Your task to perform on an android device: Search for sushi restaurants on Maps Image 0: 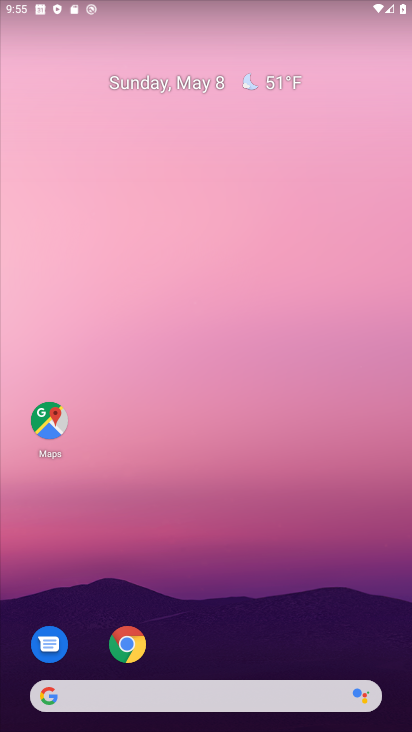
Step 0: click (239, 270)
Your task to perform on an android device: Search for sushi restaurants on Maps Image 1: 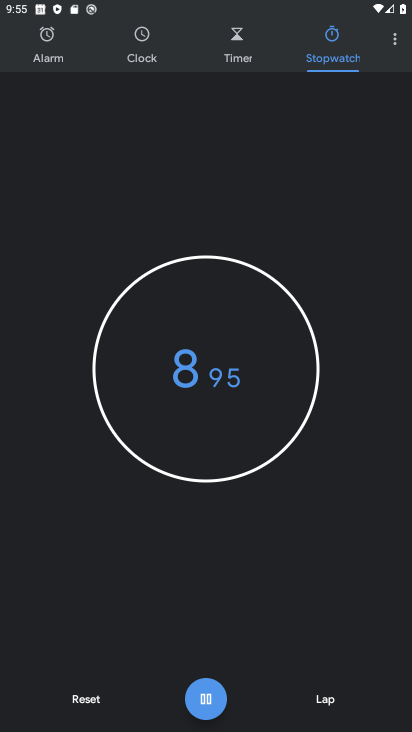
Step 1: drag from (195, 576) to (208, 290)
Your task to perform on an android device: Search for sushi restaurants on Maps Image 2: 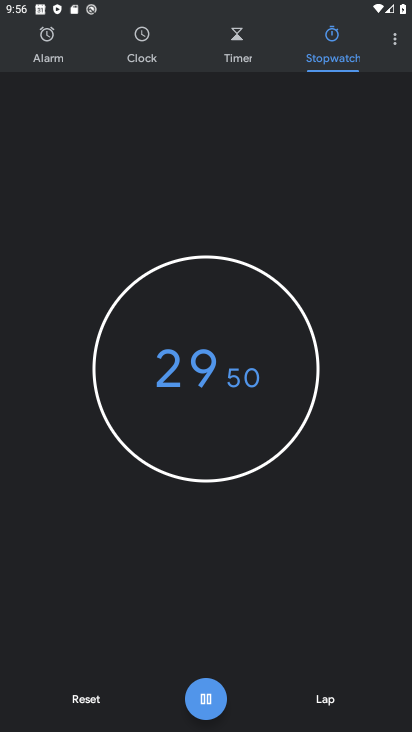
Step 2: press home button
Your task to perform on an android device: Search for sushi restaurants on Maps Image 3: 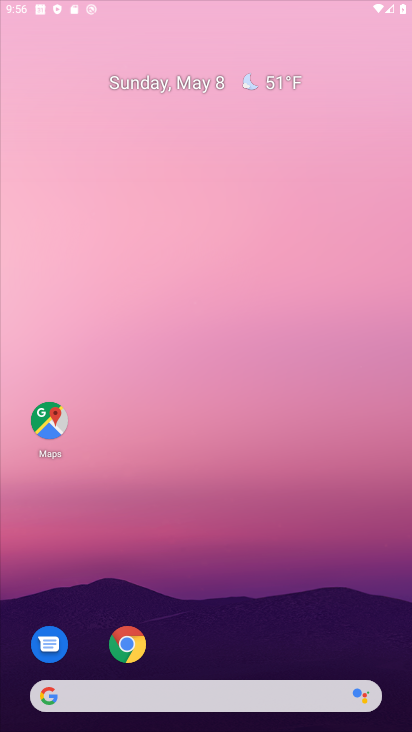
Step 3: drag from (178, 647) to (181, 169)
Your task to perform on an android device: Search for sushi restaurants on Maps Image 4: 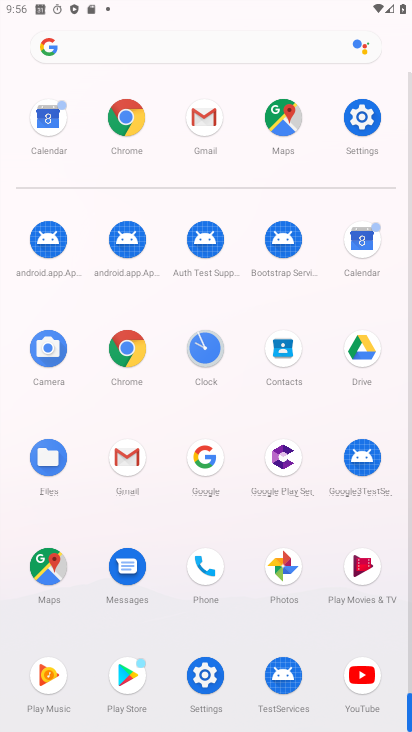
Step 4: click (64, 569)
Your task to perform on an android device: Search for sushi restaurants on Maps Image 5: 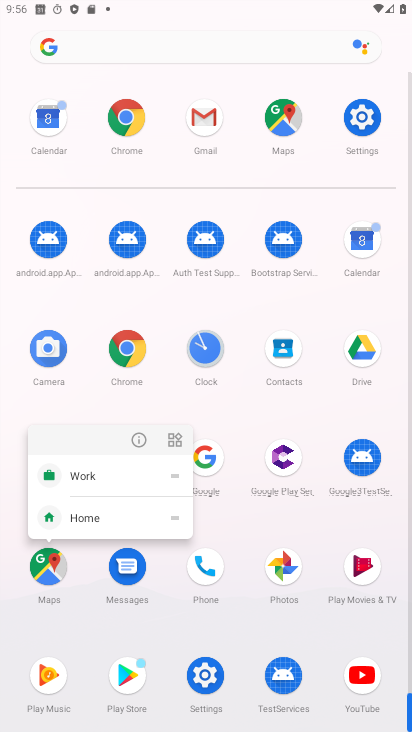
Step 5: click (144, 437)
Your task to perform on an android device: Search for sushi restaurants on Maps Image 6: 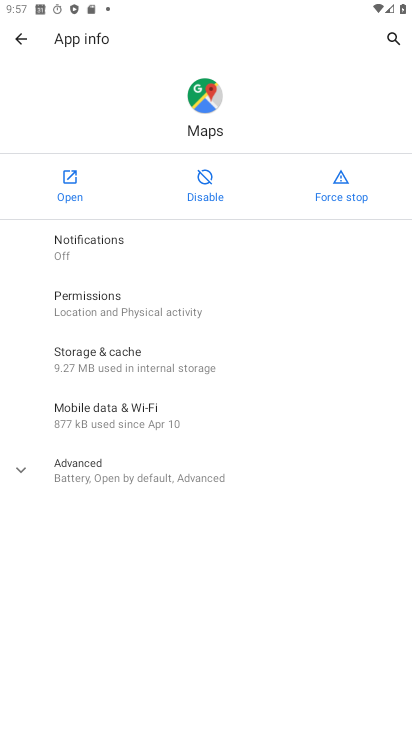
Step 6: drag from (184, 634) to (232, 280)
Your task to perform on an android device: Search for sushi restaurants on Maps Image 7: 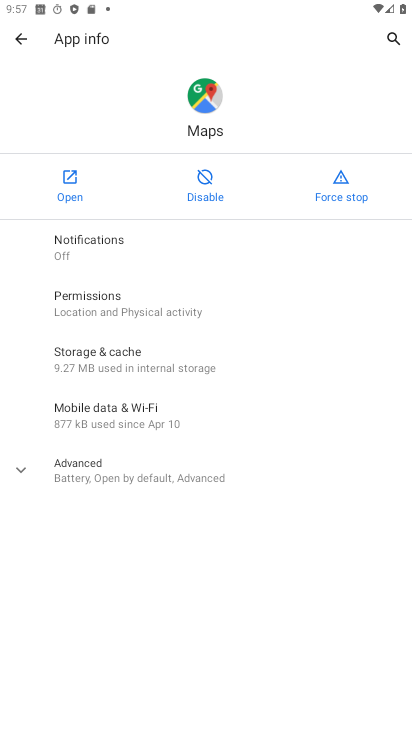
Step 7: click (68, 188)
Your task to perform on an android device: Search for sushi restaurants on Maps Image 8: 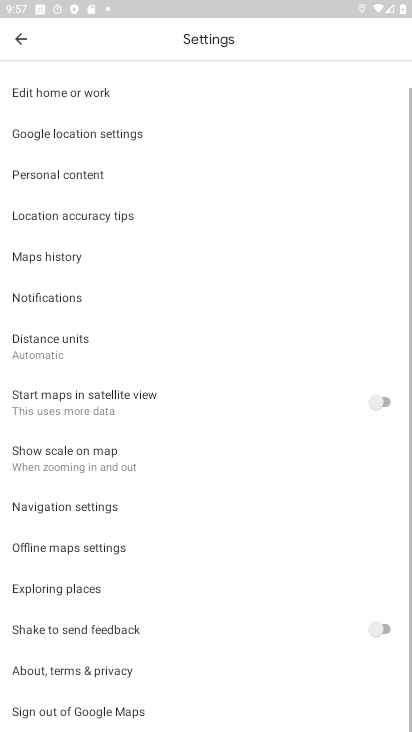
Step 8: click (29, 37)
Your task to perform on an android device: Search for sushi restaurants on Maps Image 9: 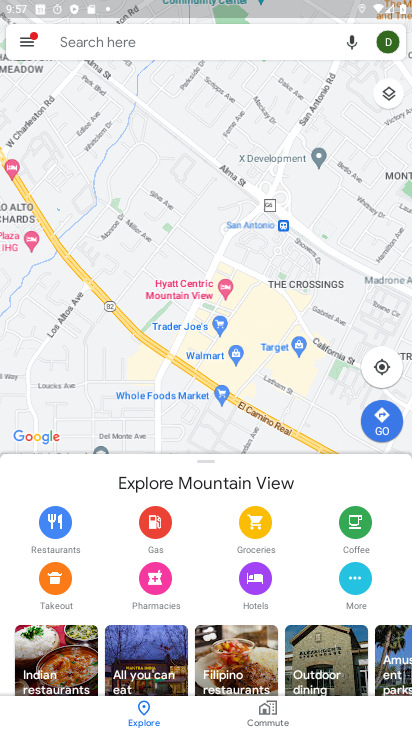
Step 9: click (139, 40)
Your task to perform on an android device: Search for sushi restaurants on Maps Image 10: 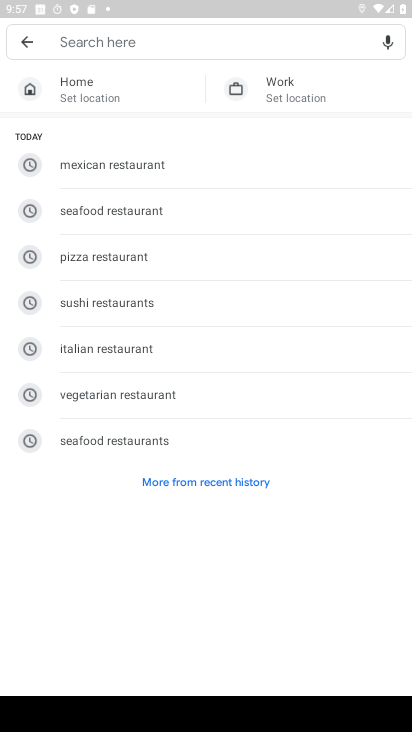
Step 10: click (87, 311)
Your task to perform on an android device: Search for sushi restaurants on Maps Image 11: 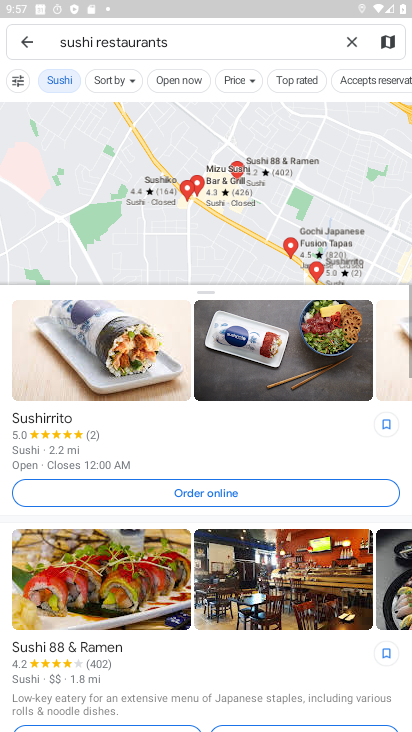
Step 11: task complete